Your task to perform on an android device: Go to internet settings Image 0: 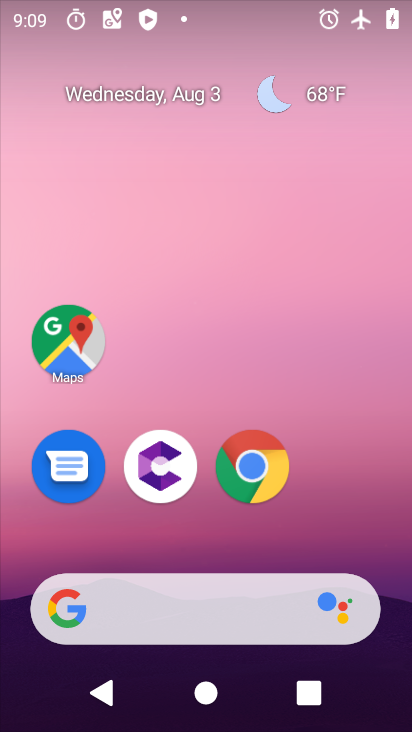
Step 0: drag from (377, 512) to (325, 6)
Your task to perform on an android device: Go to internet settings Image 1: 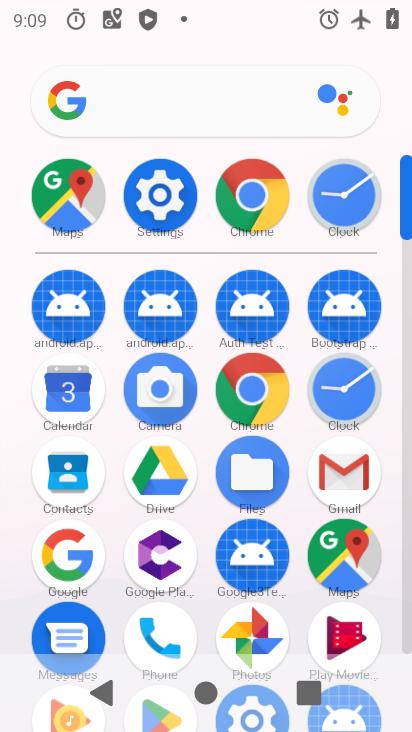
Step 1: click (169, 211)
Your task to perform on an android device: Go to internet settings Image 2: 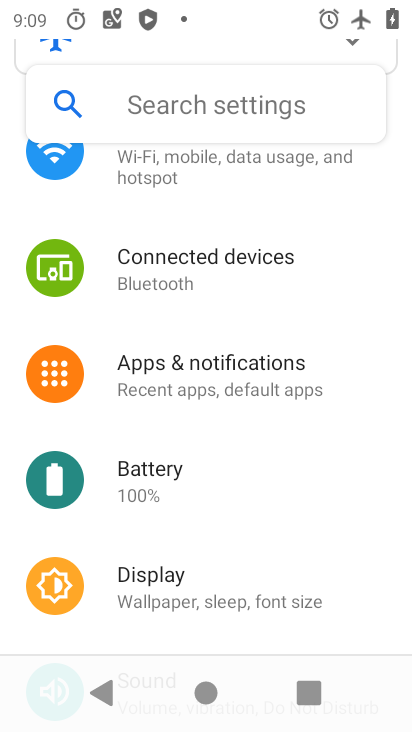
Step 2: click (224, 157)
Your task to perform on an android device: Go to internet settings Image 3: 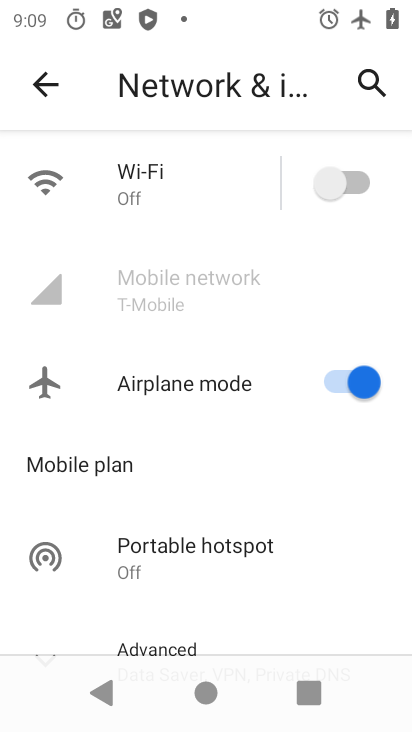
Step 3: drag from (237, 511) to (262, 112)
Your task to perform on an android device: Go to internet settings Image 4: 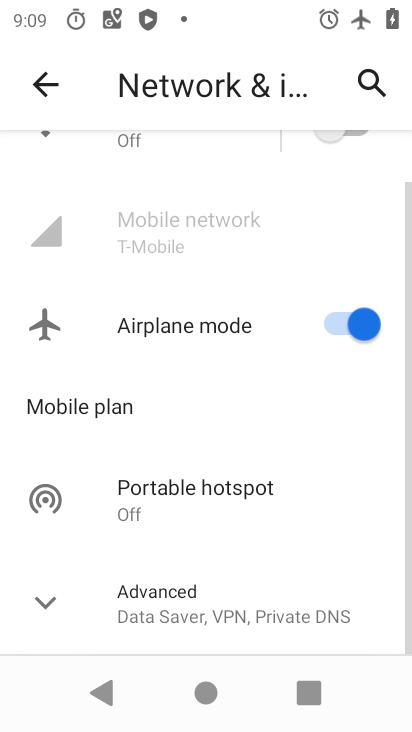
Step 4: click (163, 594)
Your task to perform on an android device: Go to internet settings Image 5: 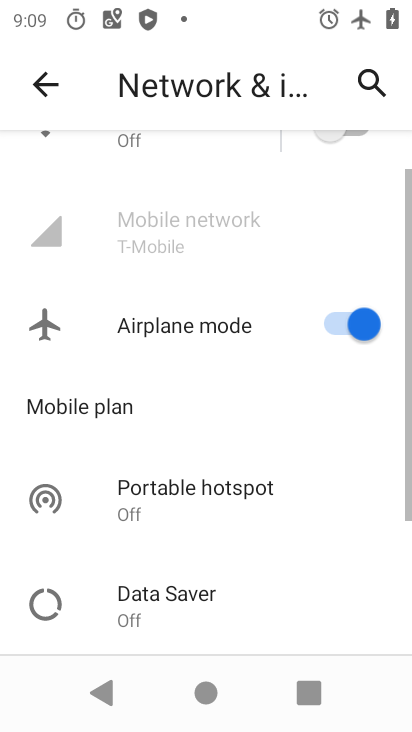
Step 5: task complete